Your task to perform on an android device: Search for logitech g910 on target, select the first entry, and add it to the cart. Image 0: 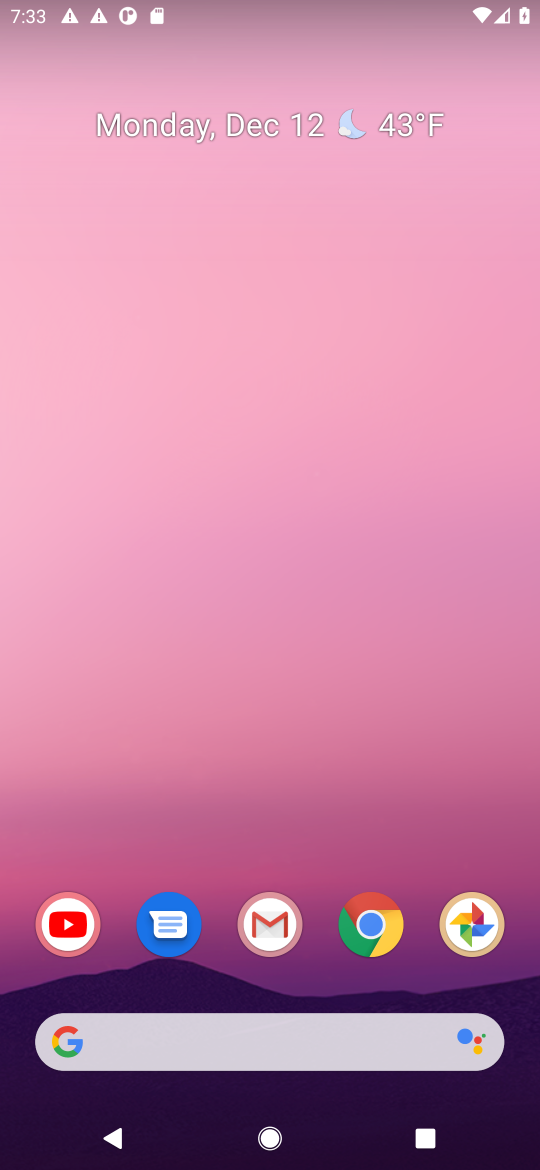
Step 0: click (228, 61)
Your task to perform on an android device: Search for logitech g910 on target, select the first entry, and add it to the cart. Image 1: 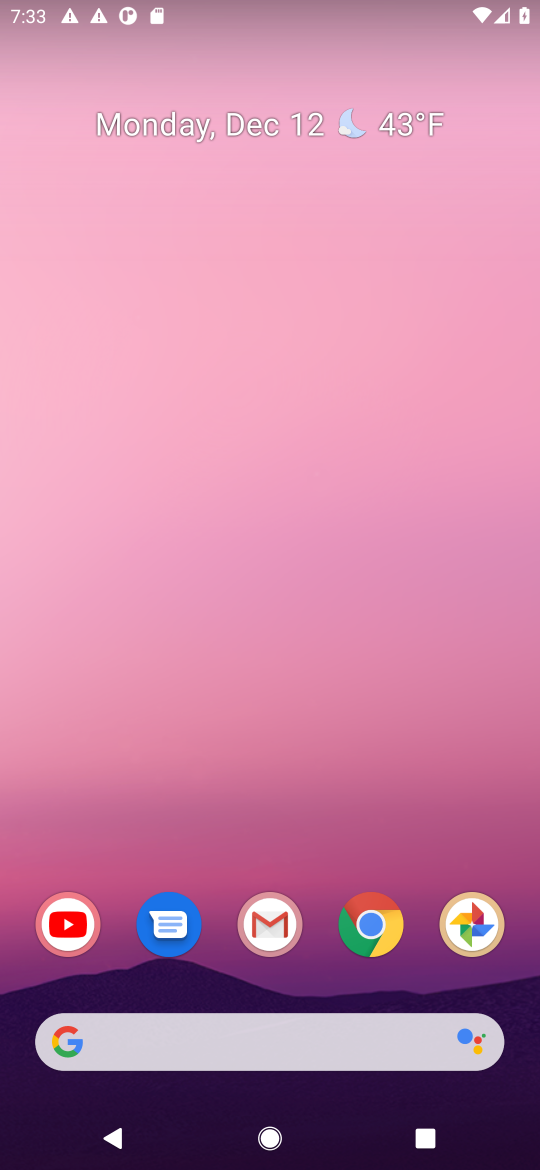
Step 1: click (245, 1029)
Your task to perform on an android device: Search for logitech g910 on target, select the first entry, and add it to the cart. Image 2: 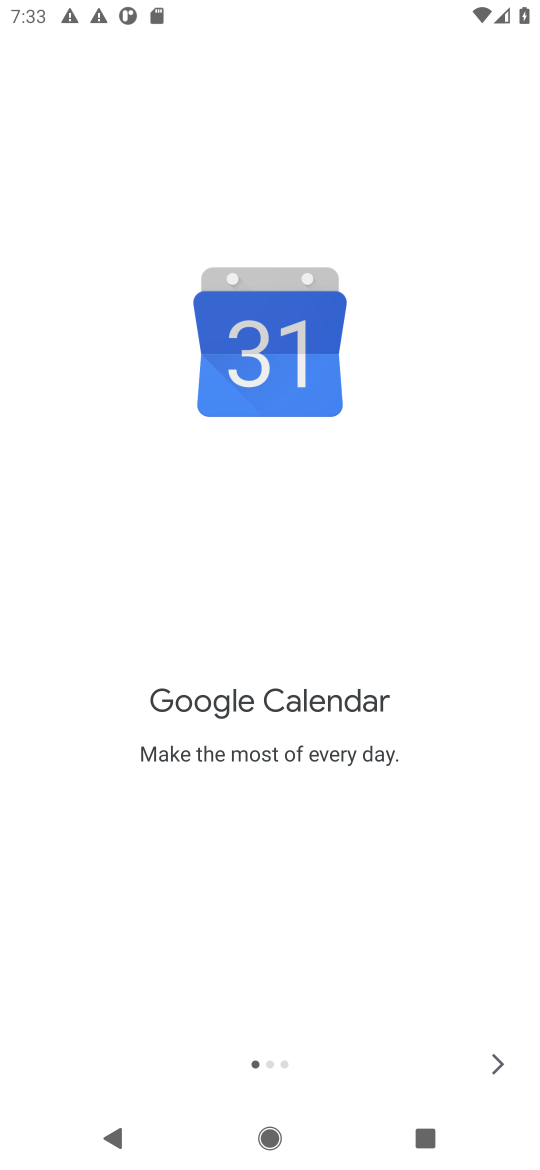
Step 2: press home button
Your task to perform on an android device: Search for logitech g910 on target, select the first entry, and add it to the cart. Image 3: 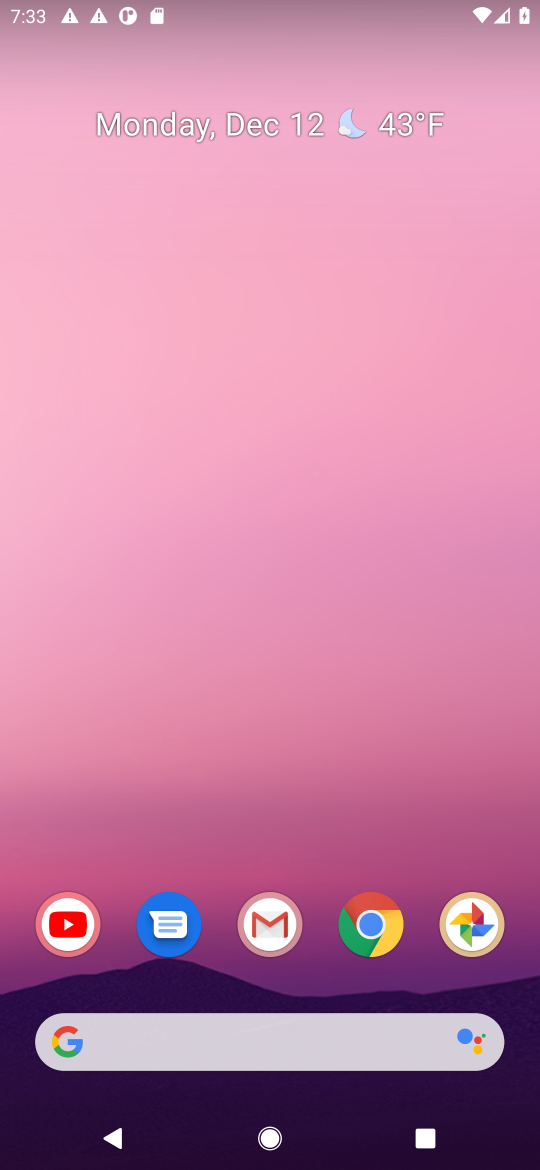
Step 3: click (264, 1030)
Your task to perform on an android device: Search for logitech g910 on target, select the first entry, and add it to the cart. Image 4: 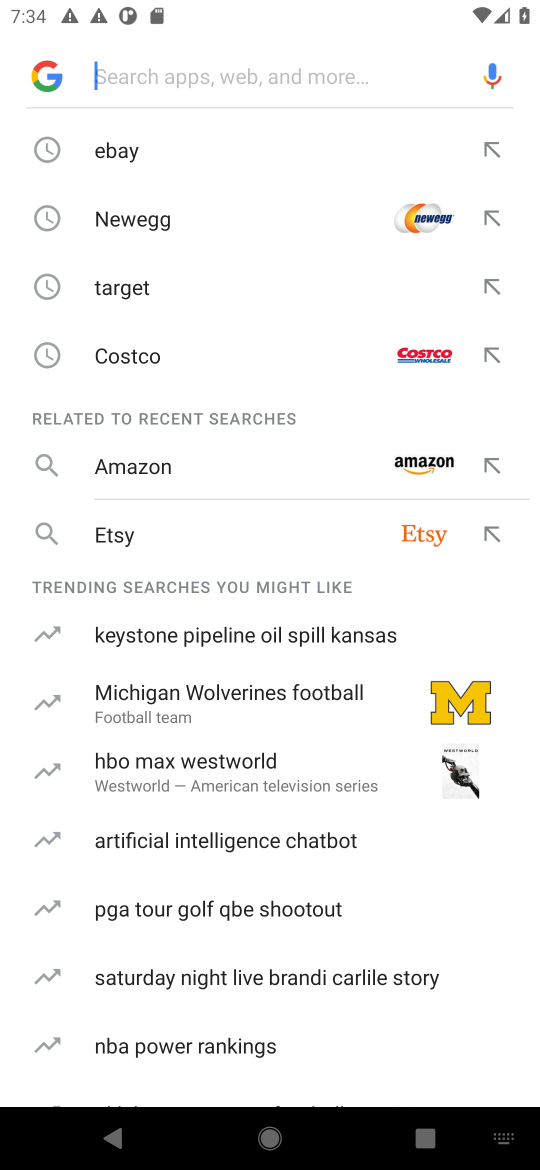
Step 4: type " logitech g910"
Your task to perform on an android device: Search for logitech g910 on target, select the first entry, and add it to the cart. Image 5: 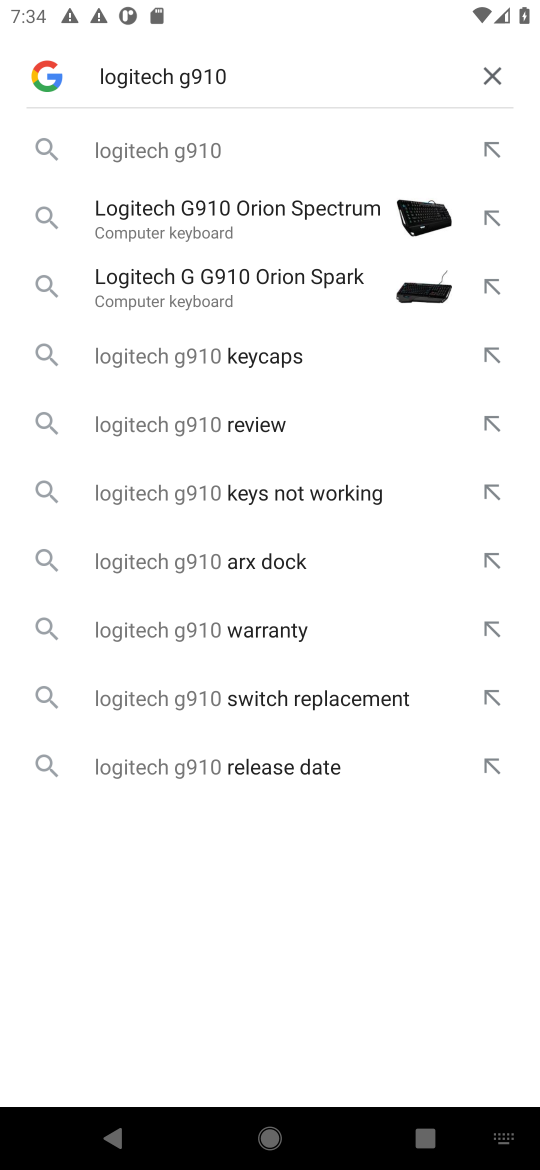
Step 5: click (178, 157)
Your task to perform on an android device: Search for logitech g910 on target, select the first entry, and add it to the cart. Image 6: 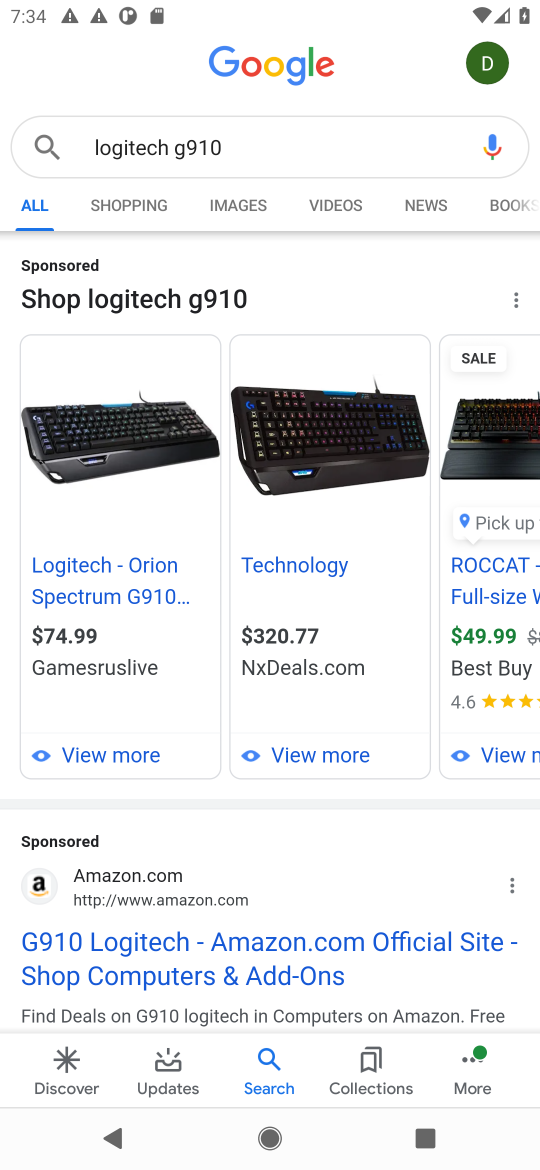
Step 6: click (264, 150)
Your task to perform on an android device: Search for logitech g910 on target, select the first entry, and add it to the cart. Image 7: 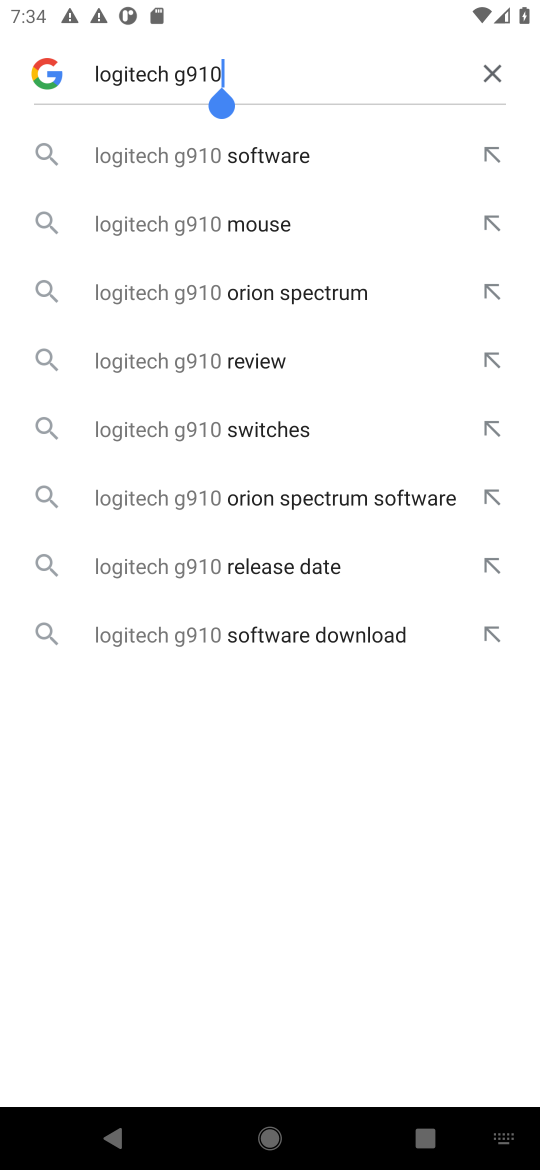
Step 7: click (496, 71)
Your task to perform on an android device: Search for logitech g910 on target, select the first entry, and add it to the cart. Image 8: 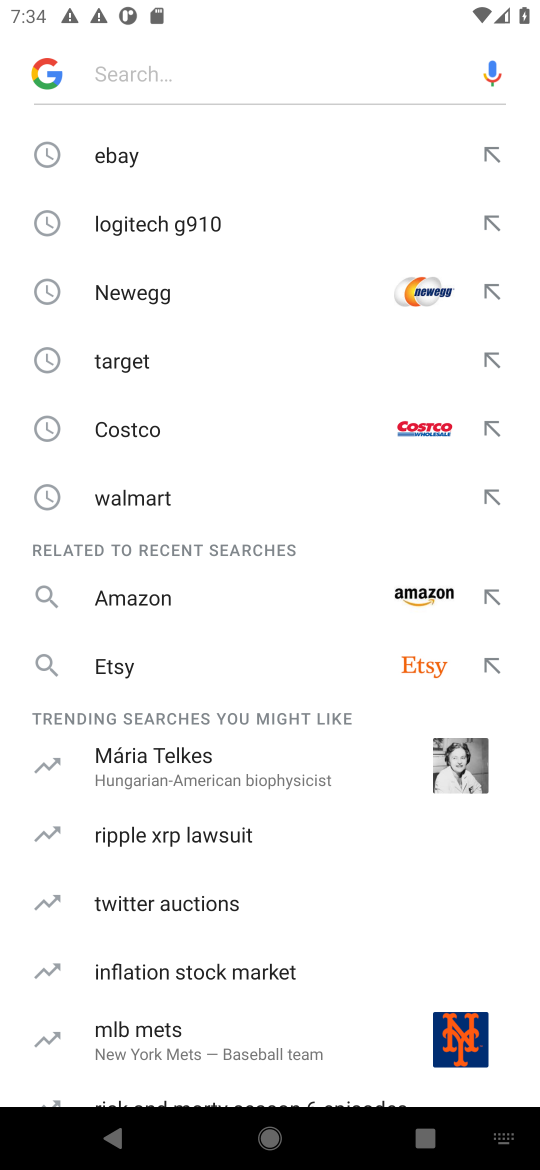
Step 8: type "target"
Your task to perform on an android device: Search for logitech g910 on target, select the first entry, and add it to the cart. Image 9: 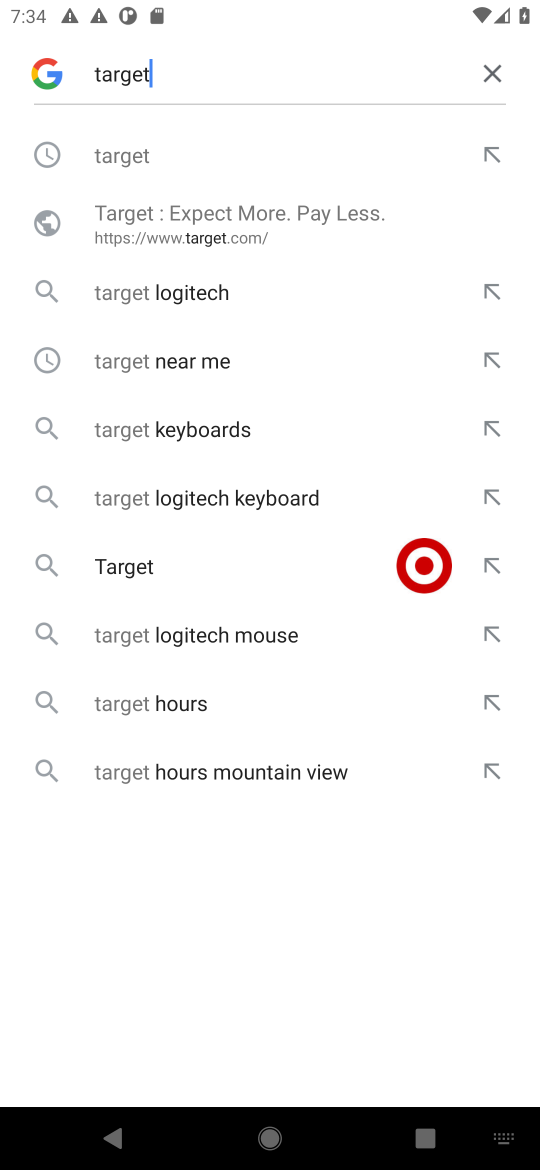
Step 9: click (203, 572)
Your task to perform on an android device: Search for logitech g910 on target, select the first entry, and add it to the cart. Image 10: 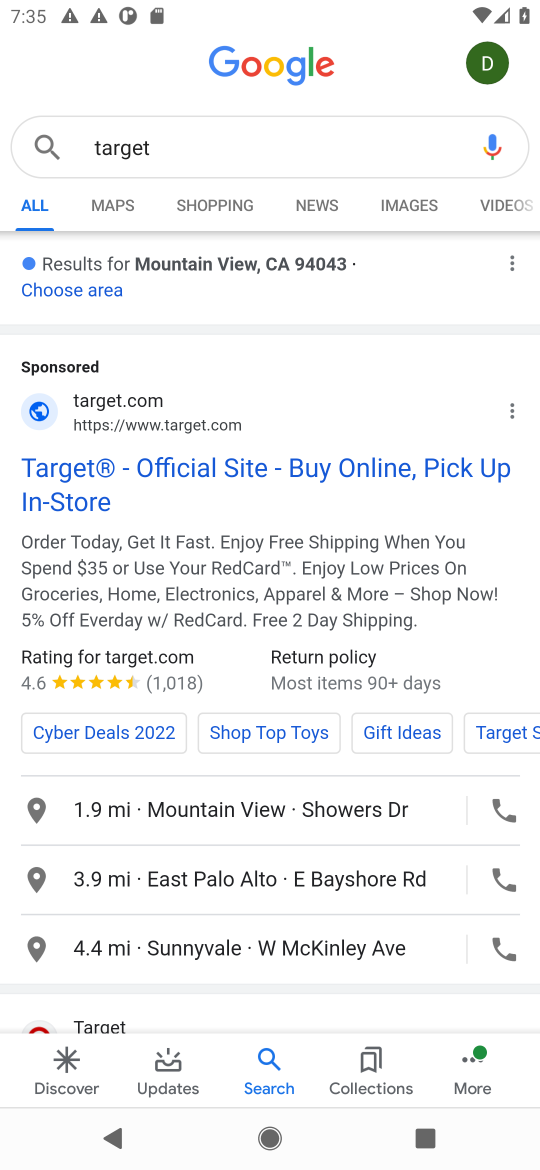
Step 10: drag from (156, 964) to (156, 605)
Your task to perform on an android device: Search for logitech g910 on target, select the first entry, and add it to the cart. Image 11: 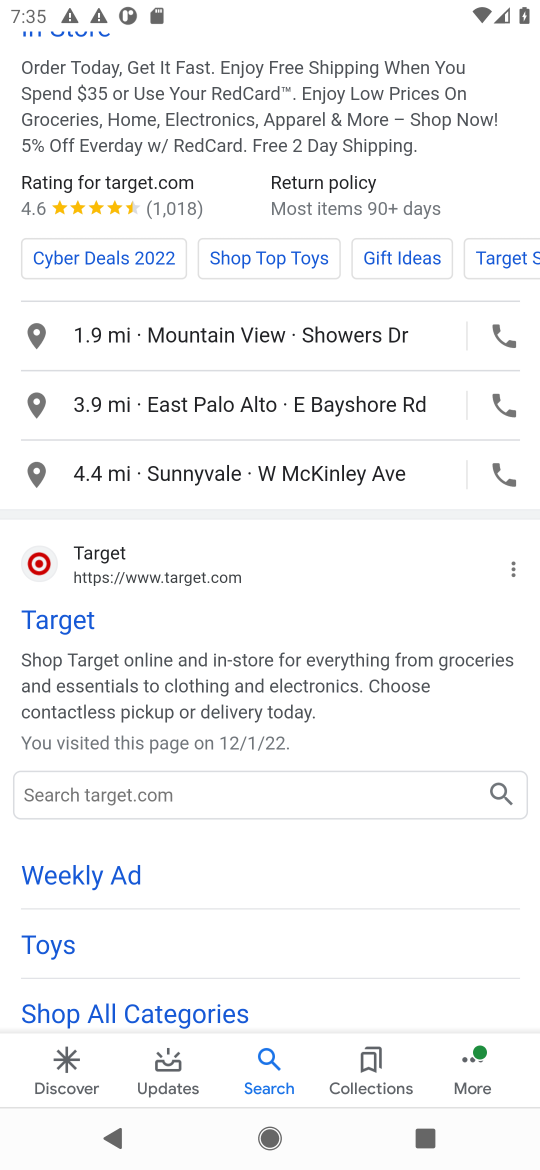
Step 11: click (103, 563)
Your task to perform on an android device: Search for logitech g910 on target, select the first entry, and add it to the cart. Image 12: 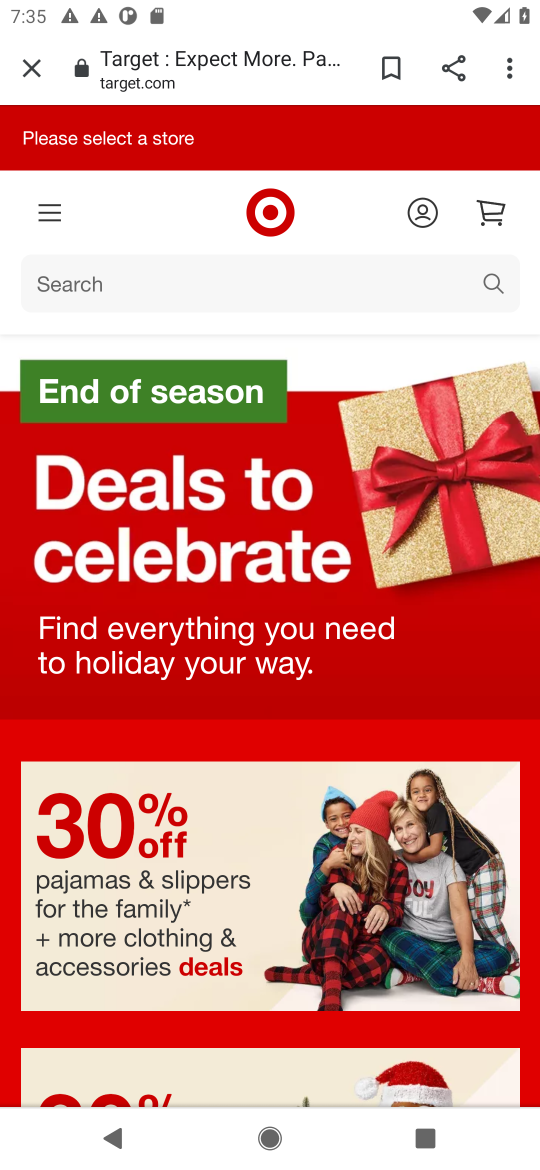
Step 12: click (229, 277)
Your task to perform on an android device: Search for logitech g910 on target, select the first entry, and add it to the cart. Image 13: 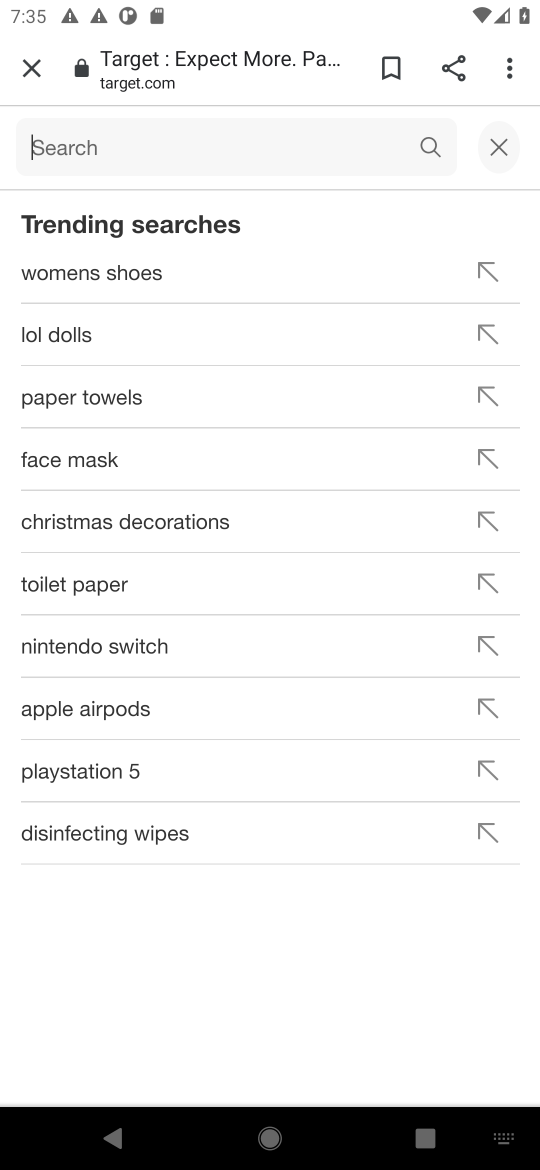
Step 13: type "logitech g910"
Your task to perform on an android device: Search for logitech g910 on target, select the first entry, and add it to the cart. Image 14: 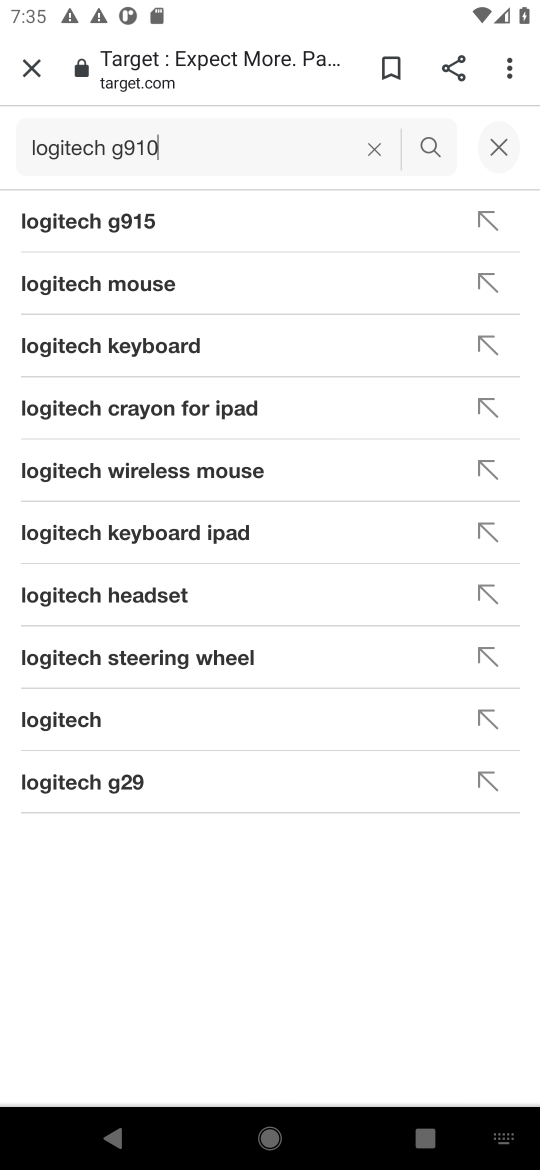
Step 14: click (432, 146)
Your task to perform on an android device: Search for logitech g910 on target, select the first entry, and add it to the cart. Image 15: 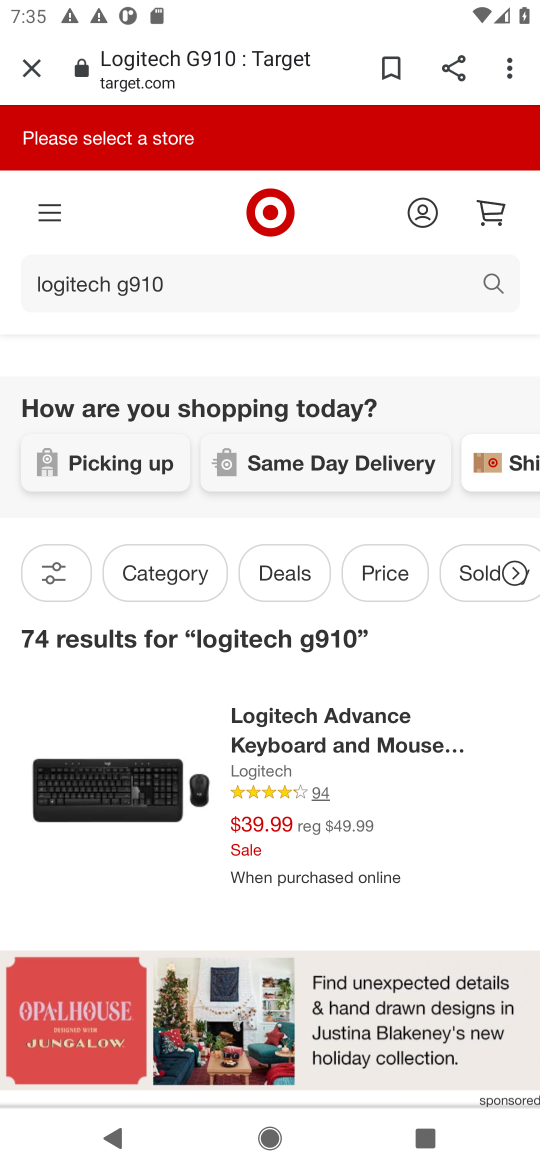
Step 15: click (274, 763)
Your task to perform on an android device: Search for logitech g910 on target, select the first entry, and add it to the cart. Image 16: 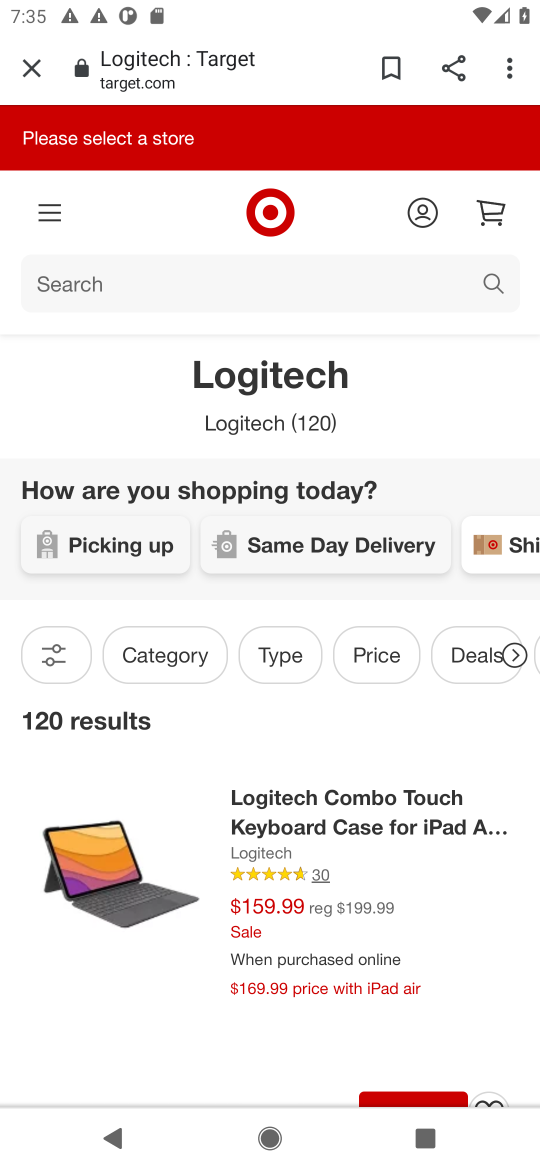
Step 16: drag from (292, 986) to (346, 679)
Your task to perform on an android device: Search for logitech g910 on target, select the first entry, and add it to the cart. Image 17: 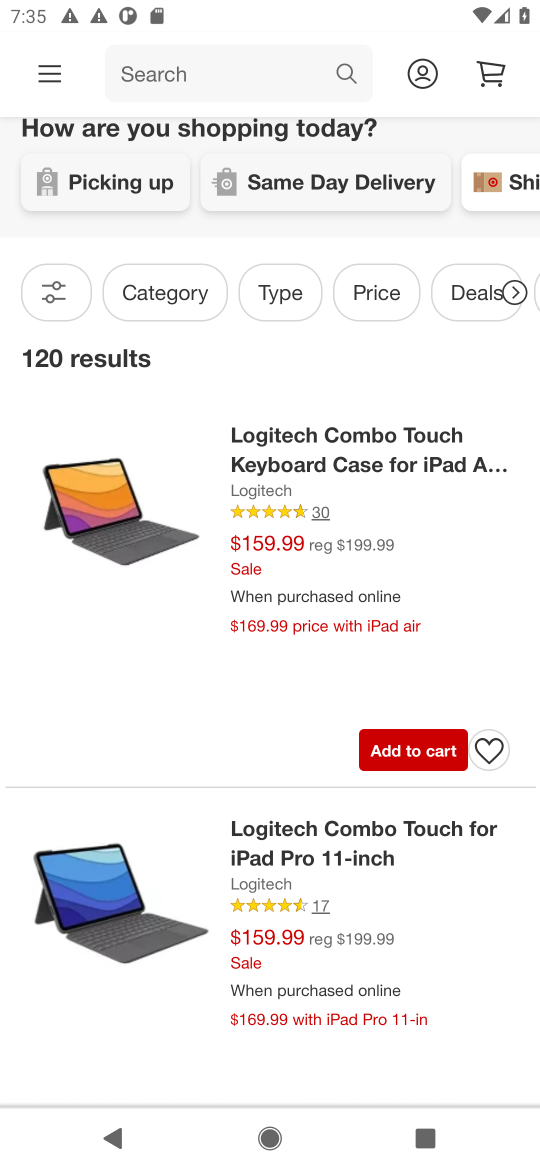
Step 17: click (408, 753)
Your task to perform on an android device: Search for logitech g910 on target, select the first entry, and add it to the cart. Image 18: 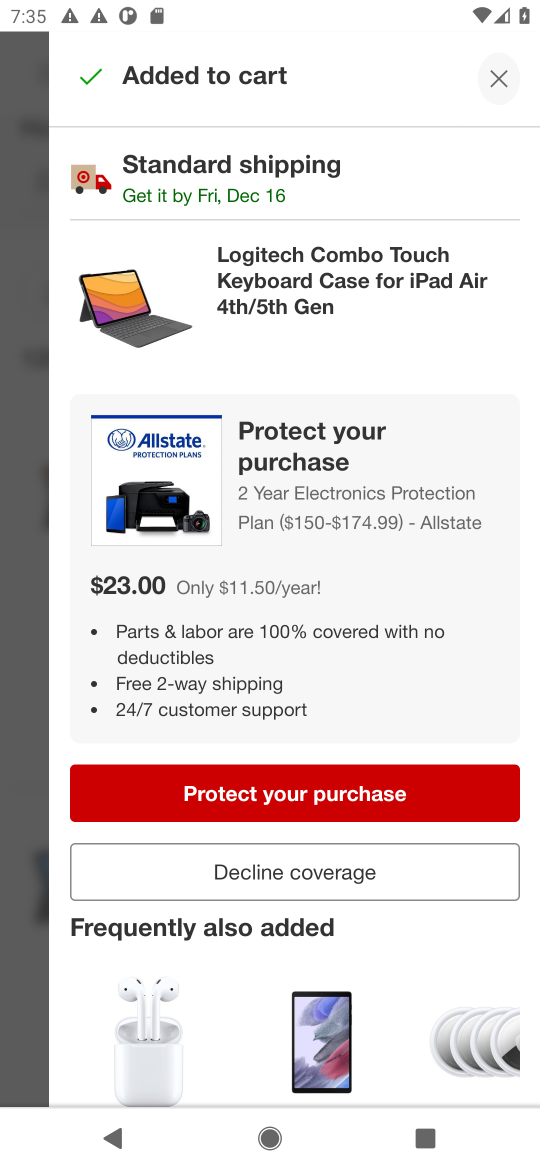
Step 18: task complete